Your task to perform on an android device: toggle notification dots Image 0: 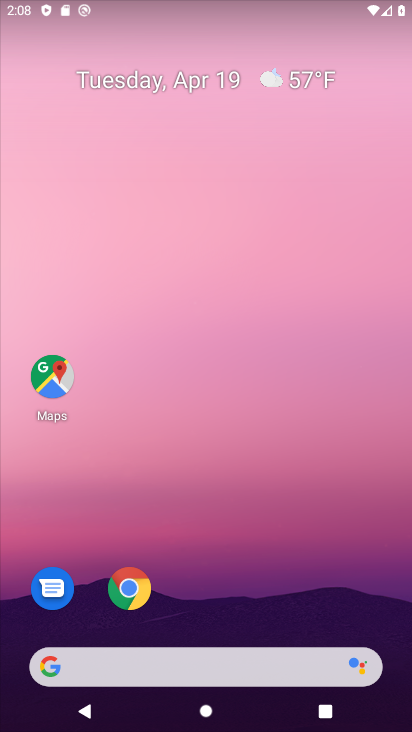
Step 0: click (307, 117)
Your task to perform on an android device: toggle notification dots Image 1: 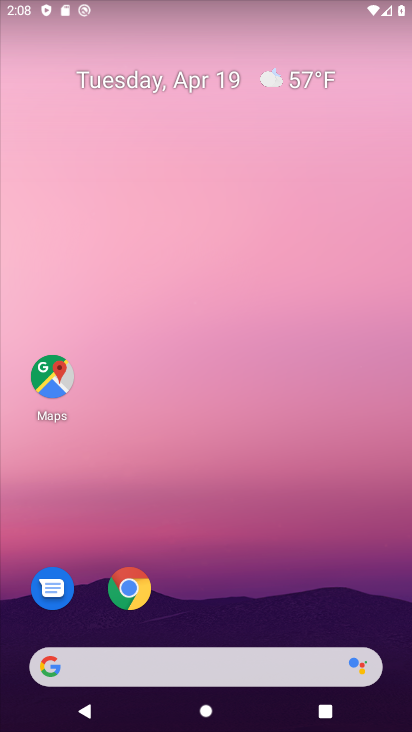
Step 1: drag from (283, 540) to (324, 63)
Your task to perform on an android device: toggle notification dots Image 2: 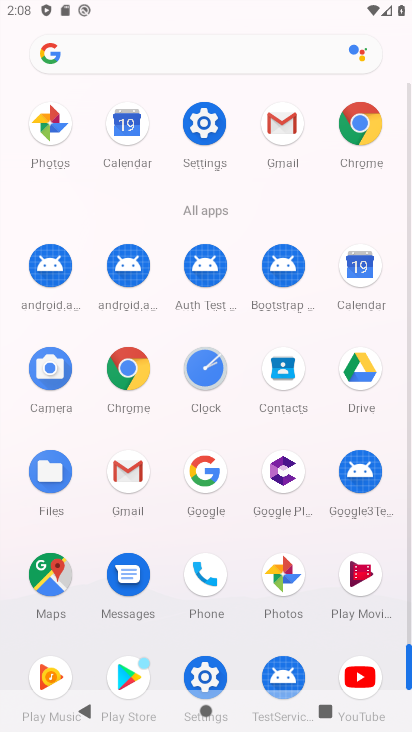
Step 2: click (209, 128)
Your task to perform on an android device: toggle notification dots Image 3: 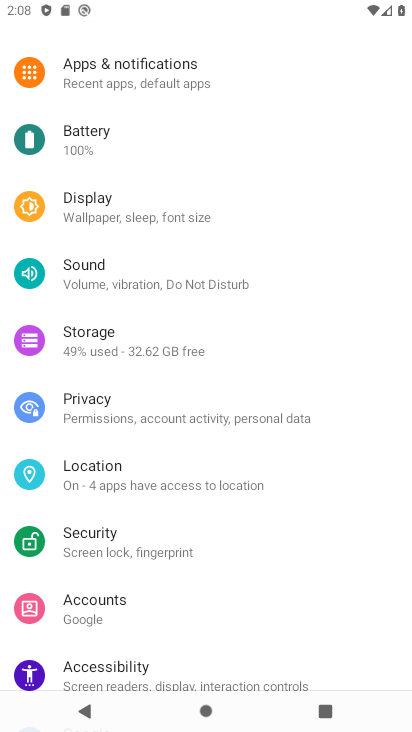
Step 3: drag from (223, 149) to (221, 443)
Your task to perform on an android device: toggle notification dots Image 4: 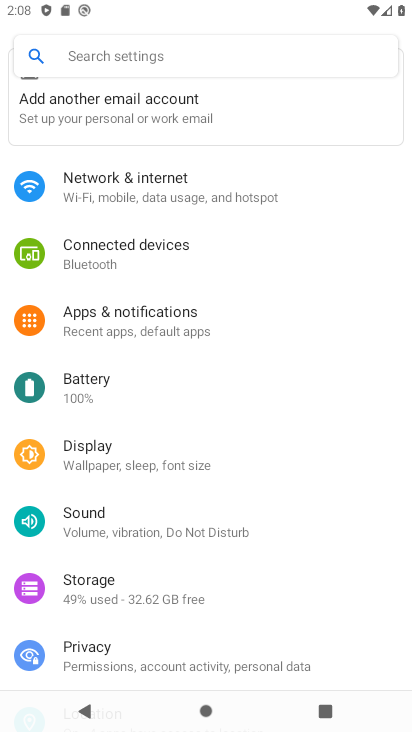
Step 4: click (203, 326)
Your task to perform on an android device: toggle notification dots Image 5: 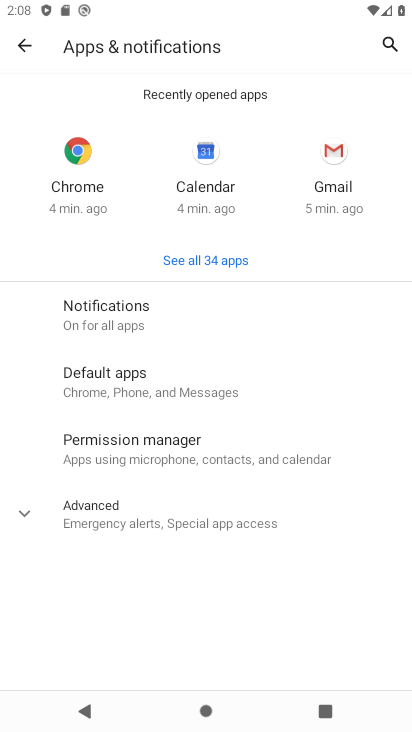
Step 5: click (181, 322)
Your task to perform on an android device: toggle notification dots Image 6: 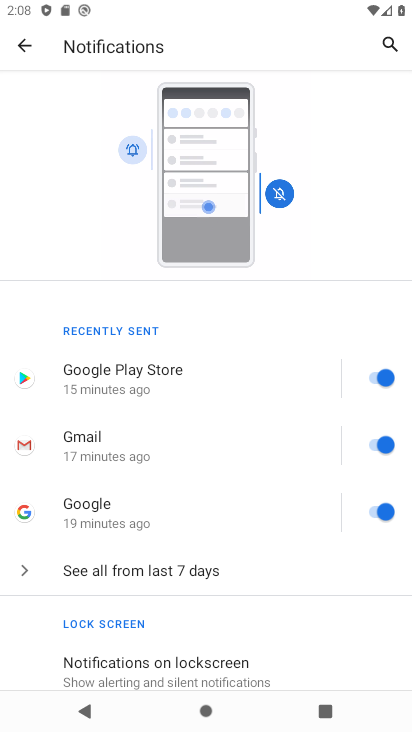
Step 6: drag from (253, 522) to (318, 146)
Your task to perform on an android device: toggle notification dots Image 7: 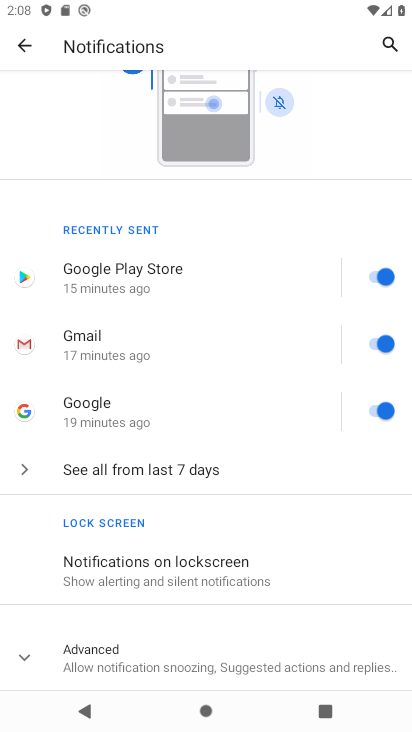
Step 7: click (21, 655)
Your task to perform on an android device: toggle notification dots Image 8: 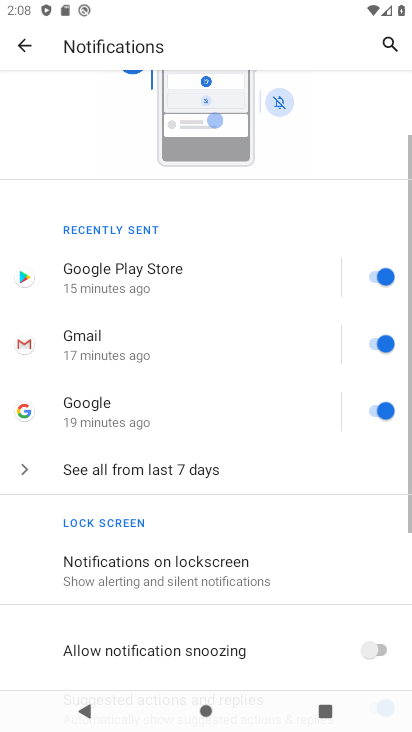
Step 8: drag from (233, 545) to (269, 251)
Your task to perform on an android device: toggle notification dots Image 9: 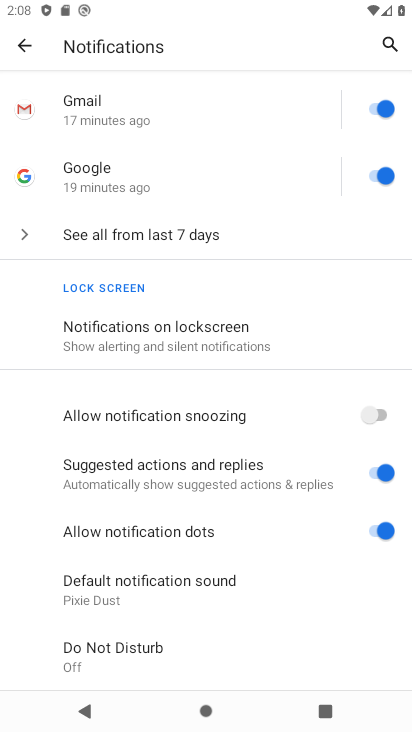
Step 9: click (371, 526)
Your task to perform on an android device: toggle notification dots Image 10: 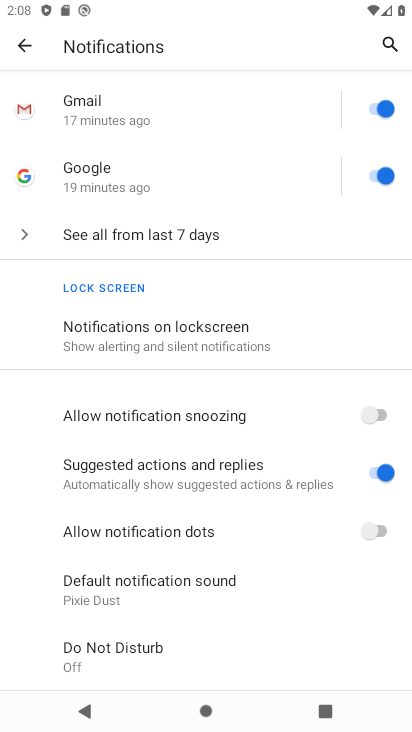
Step 10: task complete